Your task to perform on an android device: change the clock style Image 0: 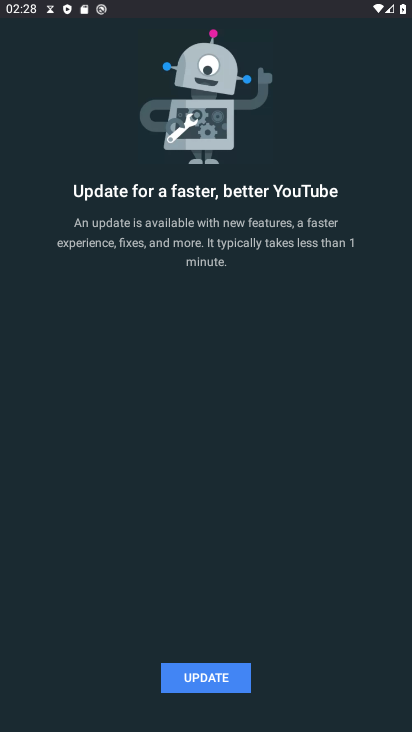
Step 0: press back button
Your task to perform on an android device: change the clock style Image 1: 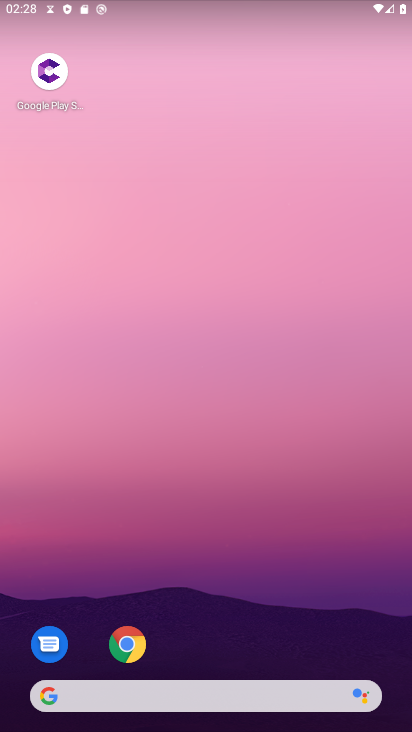
Step 1: drag from (228, 535) to (182, 116)
Your task to perform on an android device: change the clock style Image 2: 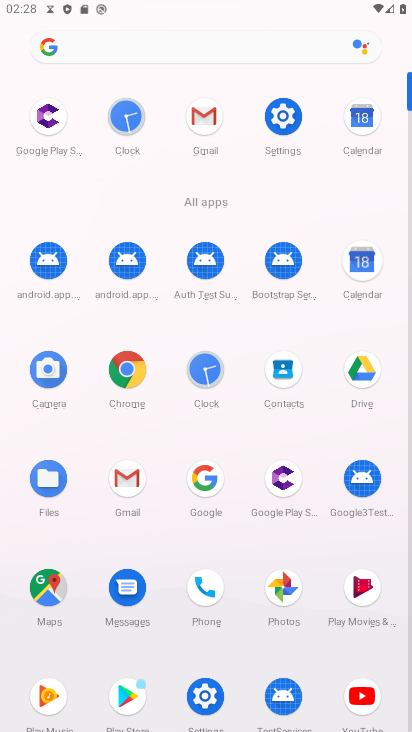
Step 2: click (144, 131)
Your task to perform on an android device: change the clock style Image 3: 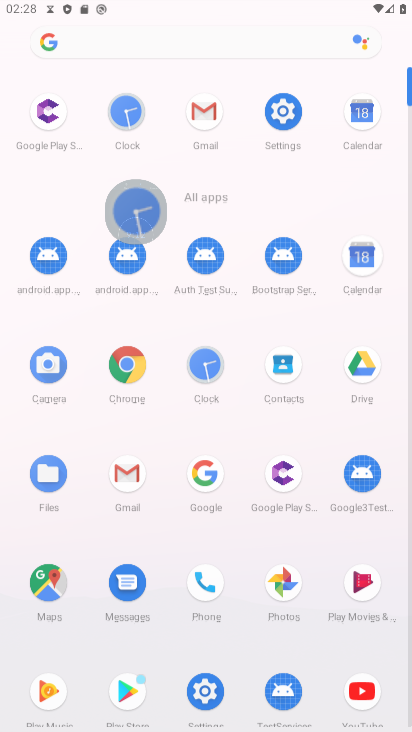
Step 3: click (157, 117)
Your task to perform on an android device: change the clock style Image 4: 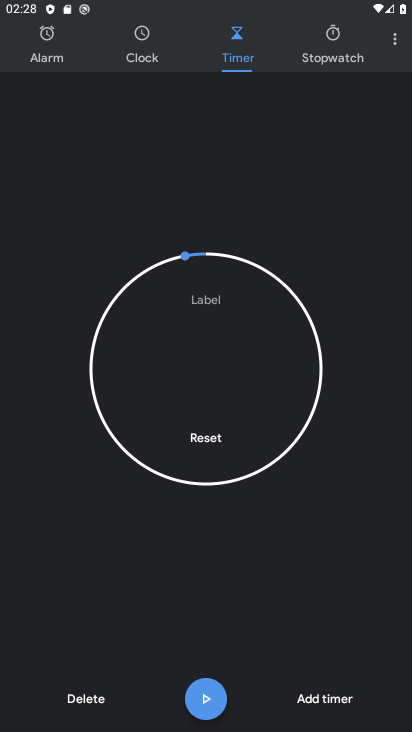
Step 4: click (392, 34)
Your task to perform on an android device: change the clock style Image 5: 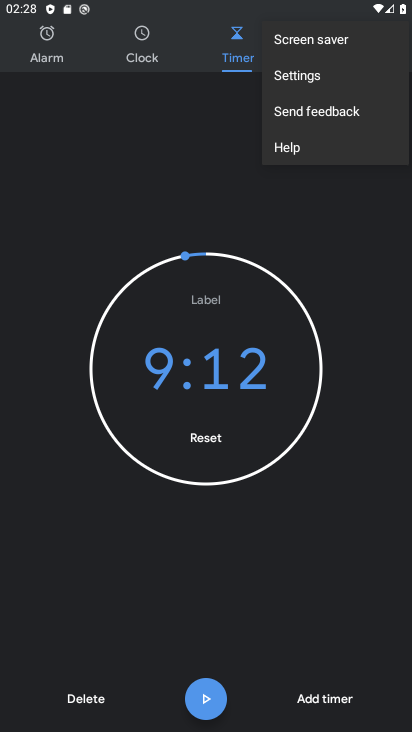
Step 5: click (306, 79)
Your task to perform on an android device: change the clock style Image 6: 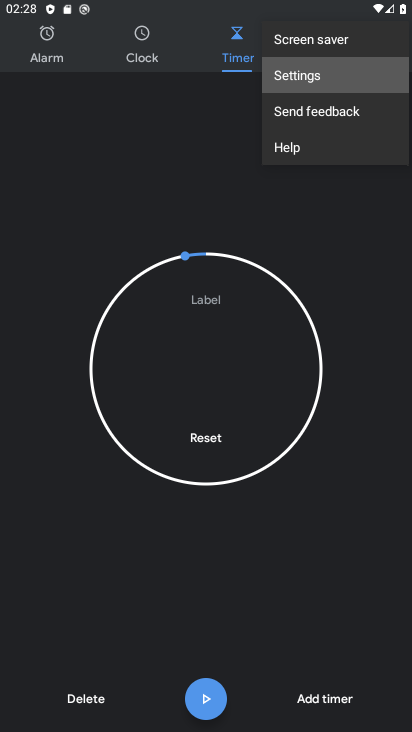
Step 6: click (305, 79)
Your task to perform on an android device: change the clock style Image 7: 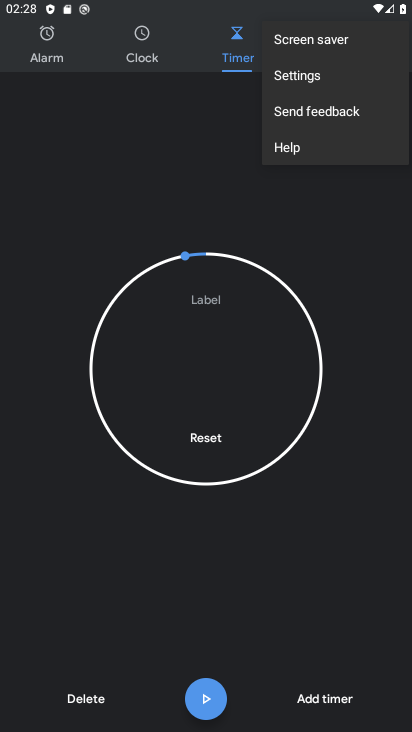
Step 7: click (305, 79)
Your task to perform on an android device: change the clock style Image 8: 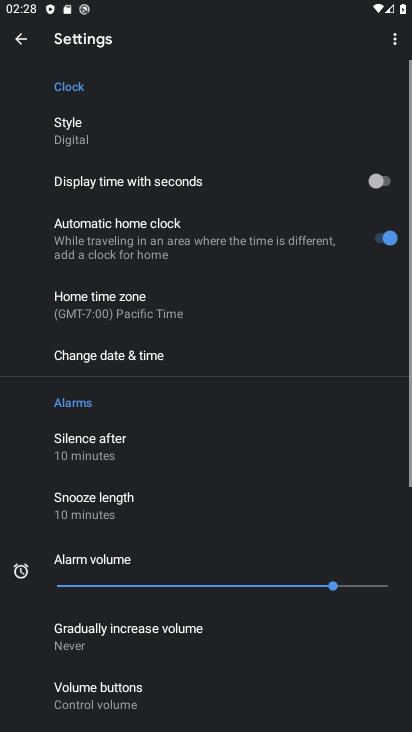
Step 8: click (305, 79)
Your task to perform on an android device: change the clock style Image 9: 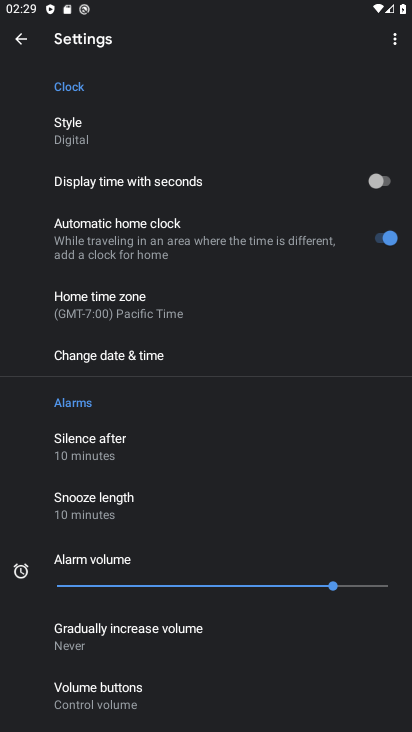
Step 9: click (379, 182)
Your task to perform on an android device: change the clock style Image 10: 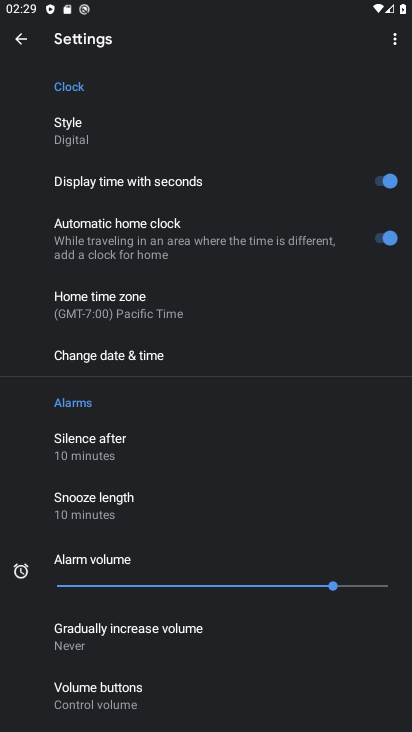
Step 10: click (387, 180)
Your task to perform on an android device: change the clock style Image 11: 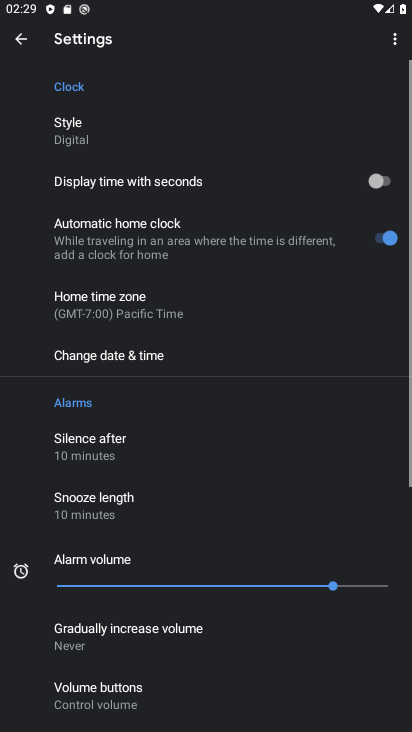
Step 11: click (92, 128)
Your task to perform on an android device: change the clock style Image 12: 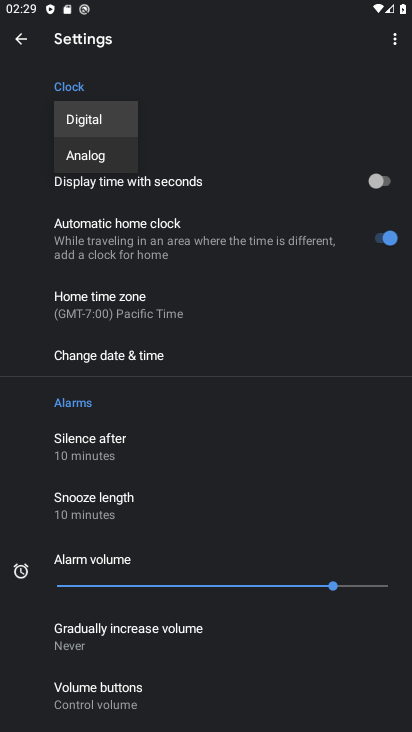
Step 12: click (82, 117)
Your task to perform on an android device: change the clock style Image 13: 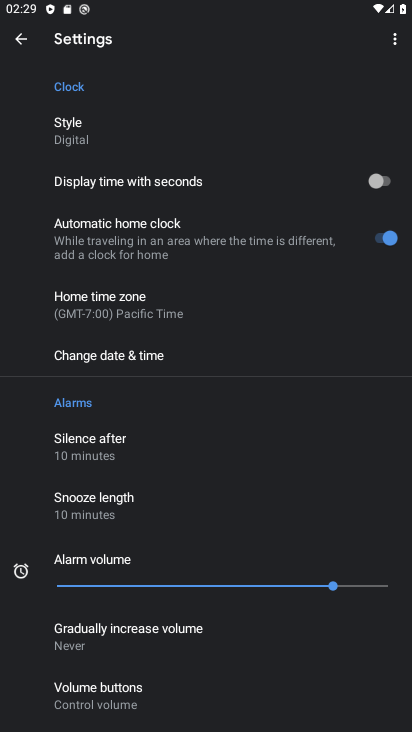
Step 13: task complete